Your task to perform on an android device: turn on notifications settings in the gmail app Image 0: 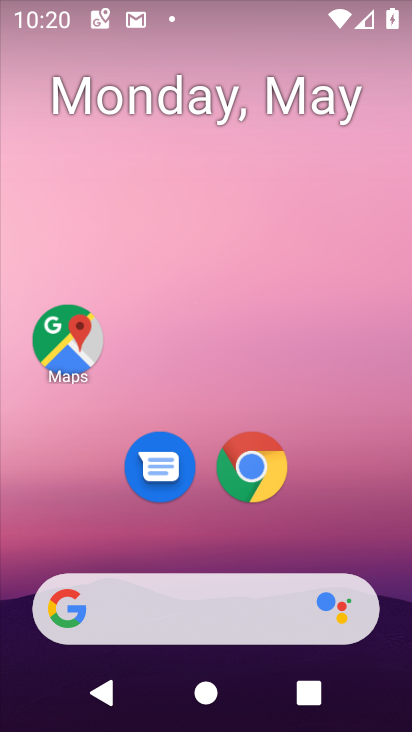
Step 0: drag from (395, 654) to (373, 25)
Your task to perform on an android device: turn on notifications settings in the gmail app Image 1: 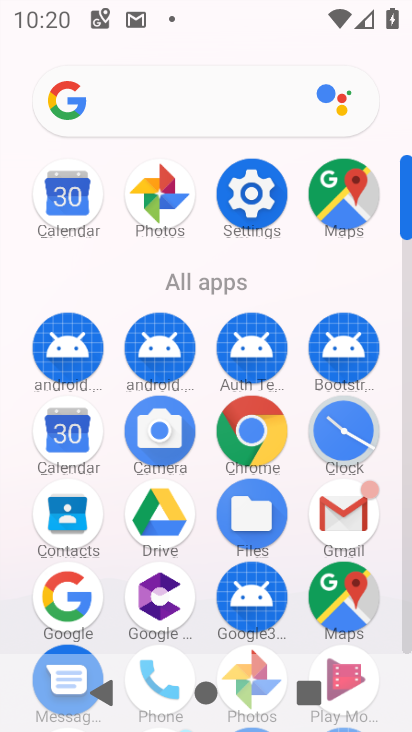
Step 1: click (332, 515)
Your task to perform on an android device: turn on notifications settings in the gmail app Image 2: 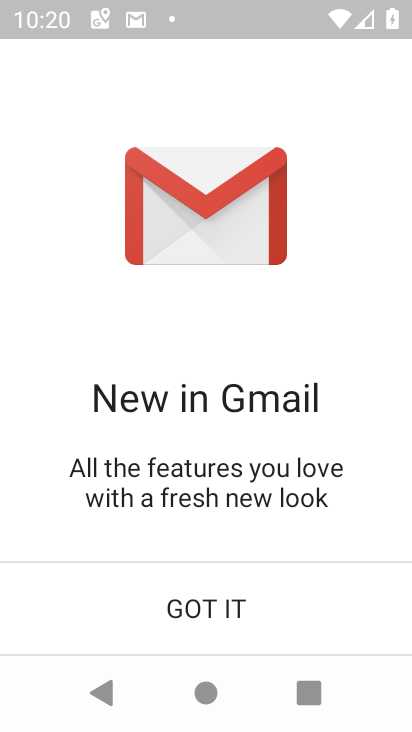
Step 2: click (219, 600)
Your task to perform on an android device: turn on notifications settings in the gmail app Image 3: 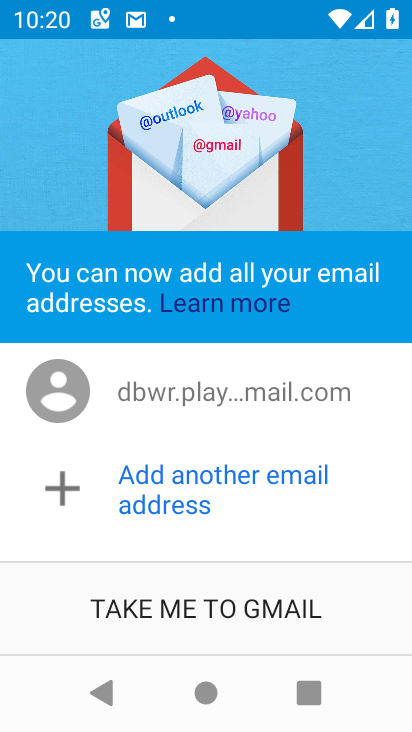
Step 3: click (219, 600)
Your task to perform on an android device: turn on notifications settings in the gmail app Image 4: 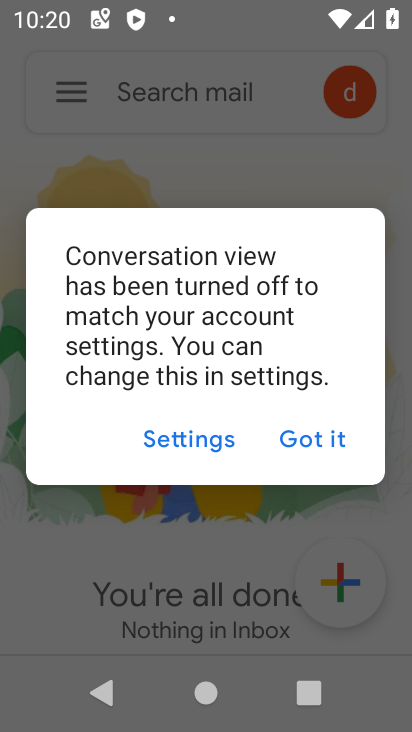
Step 4: click (301, 435)
Your task to perform on an android device: turn on notifications settings in the gmail app Image 5: 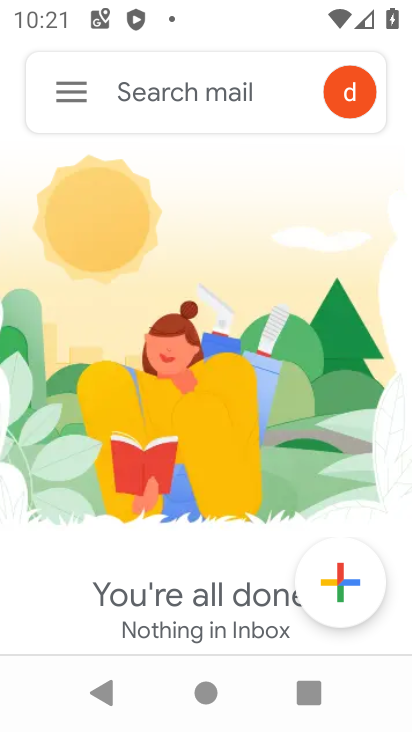
Step 5: click (83, 79)
Your task to perform on an android device: turn on notifications settings in the gmail app Image 6: 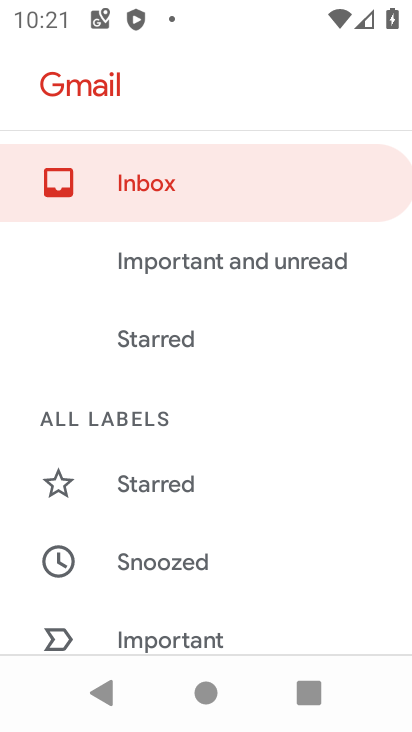
Step 6: drag from (299, 577) to (302, 127)
Your task to perform on an android device: turn on notifications settings in the gmail app Image 7: 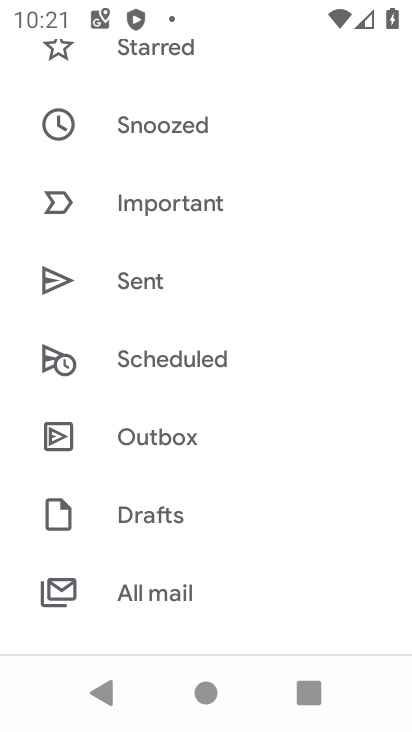
Step 7: drag from (285, 606) to (312, 201)
Your task to perform on an android device: turn on notifications settings in the gmail app Image 8: 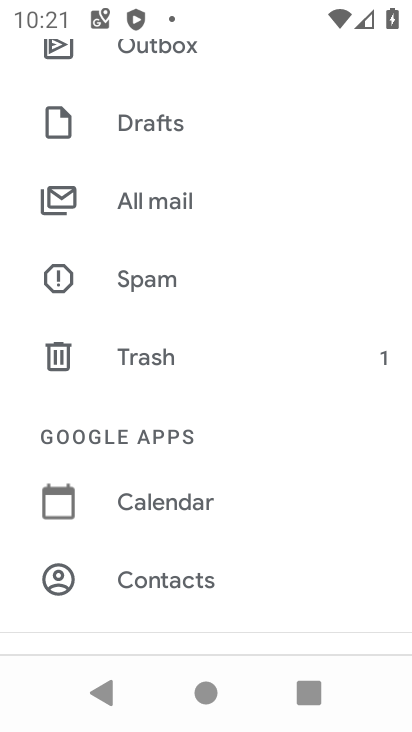
Step 8: drag from (264, 576) to (231, 204)
Your task to perform on an android device: turn on notifications settings in the gmail app Image 9: 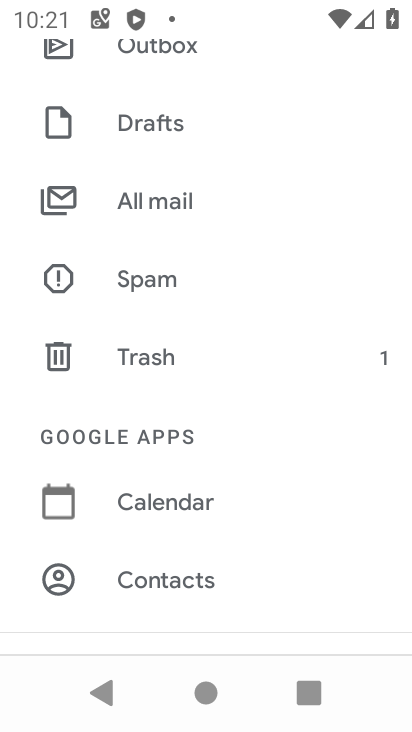
Step 9: drag from (257, 582) to (267, 300)
Your task to perform on an android device: turn on notifications settings in the gmail app Image 10: 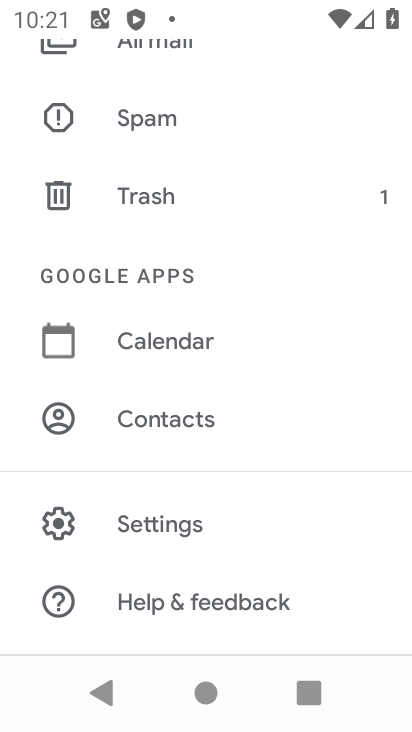
Step 10: click (167, 535)
Your task to perform on an android device: turn on notifications settings in the gmail app Image 11: 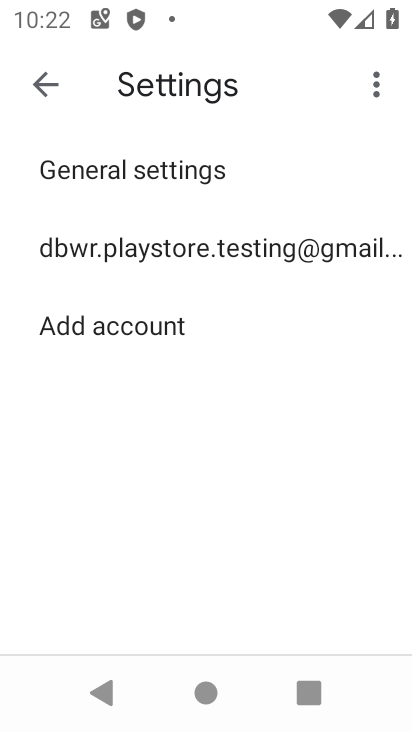
Step 11: click (141, 175)
Your task to perform on an android device: turn on notifications settings in the gmail app Image 12: 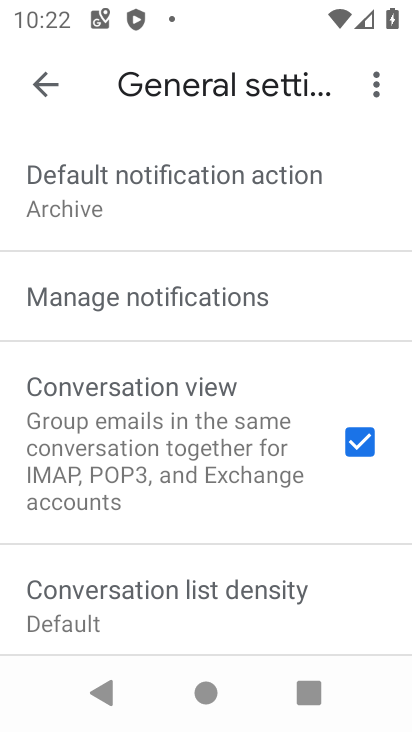
Step 12: click (137, 289)
Your task to perform on an android device: turn on notifications settings in the gmail app Image 13: 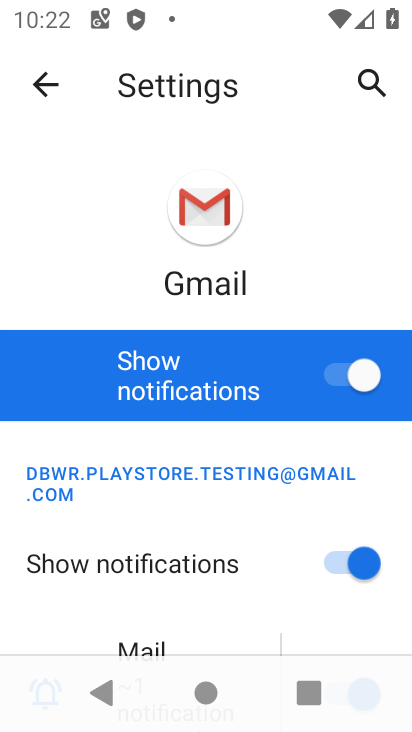
Step 13: task complete